Your task to perform on an android device: check the backup settings in the google photos Image 0: 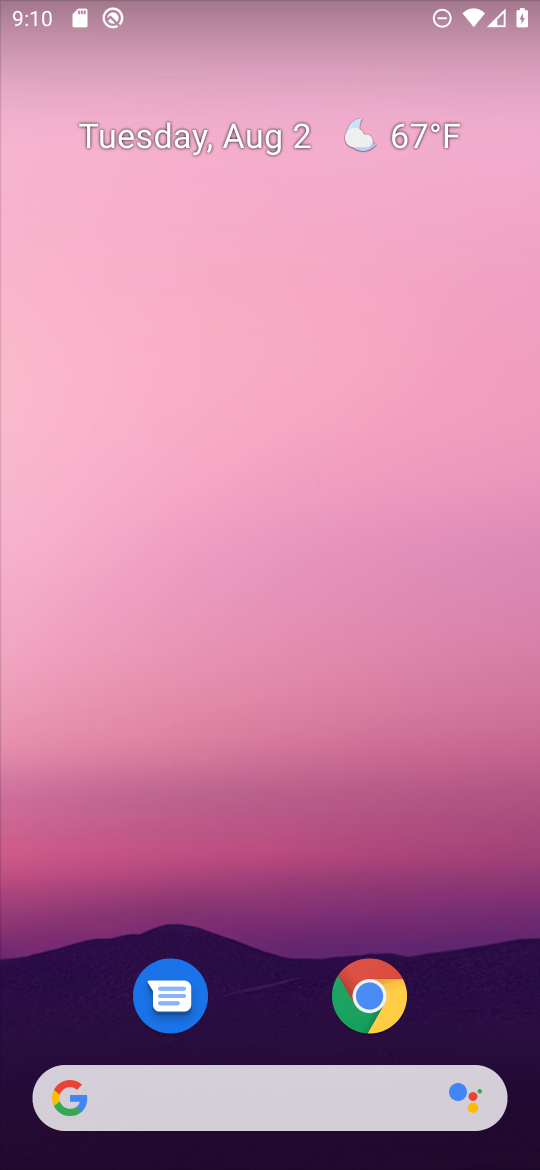
Step 0: press home button
Your task to perform on an android device: check the backup settings in the google photos Image 1: 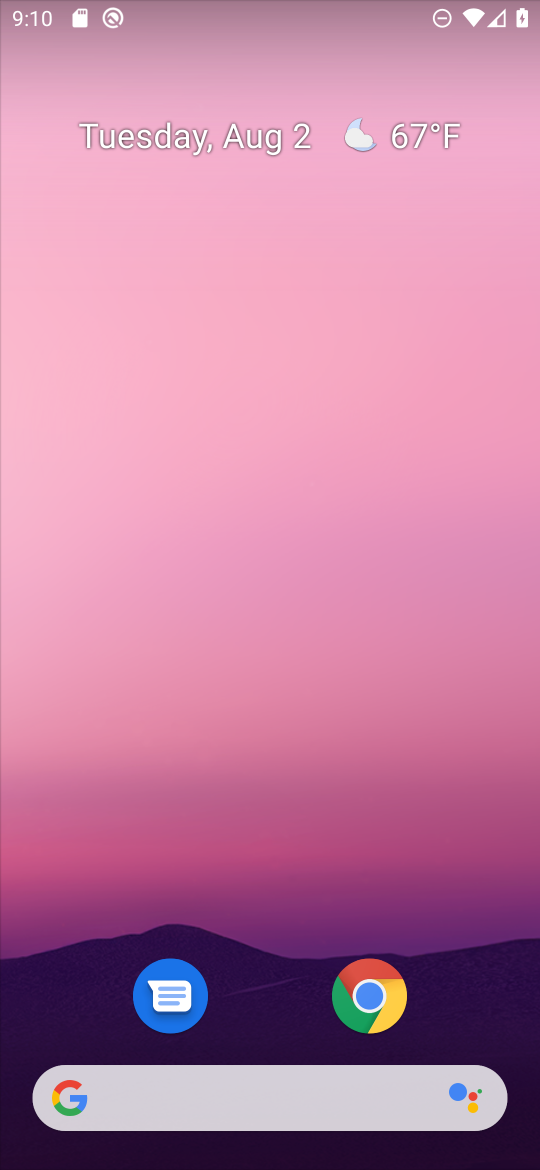
Step 1: drag from (295, 995) to (266, 163)
Your task to perform on an android device: check the backup settings in the google photos Image 2: 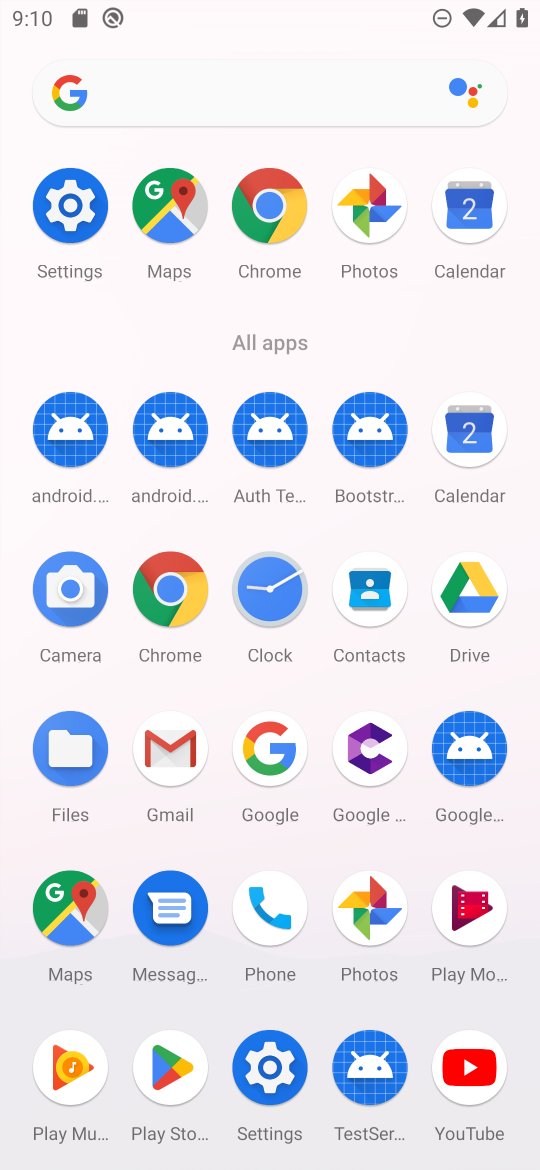
Step 2: click (366, 893)
Your task to perform on an android device: check the backup settings in the google photos Image 3: 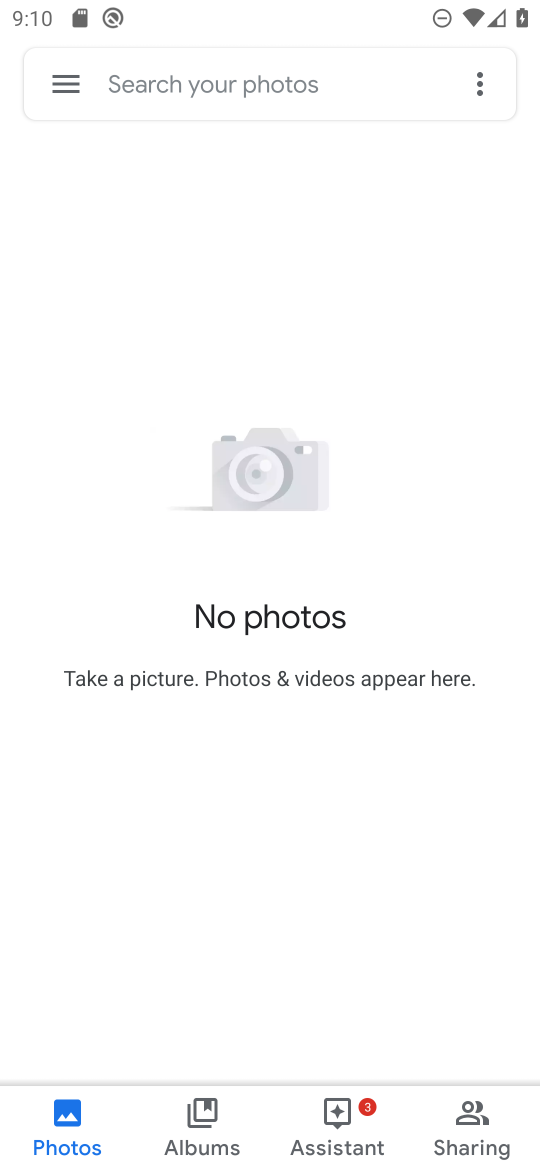
Step 3: click (469, 79)
Your task to perform on an android device: check the backup settings in the google photos Image 4: 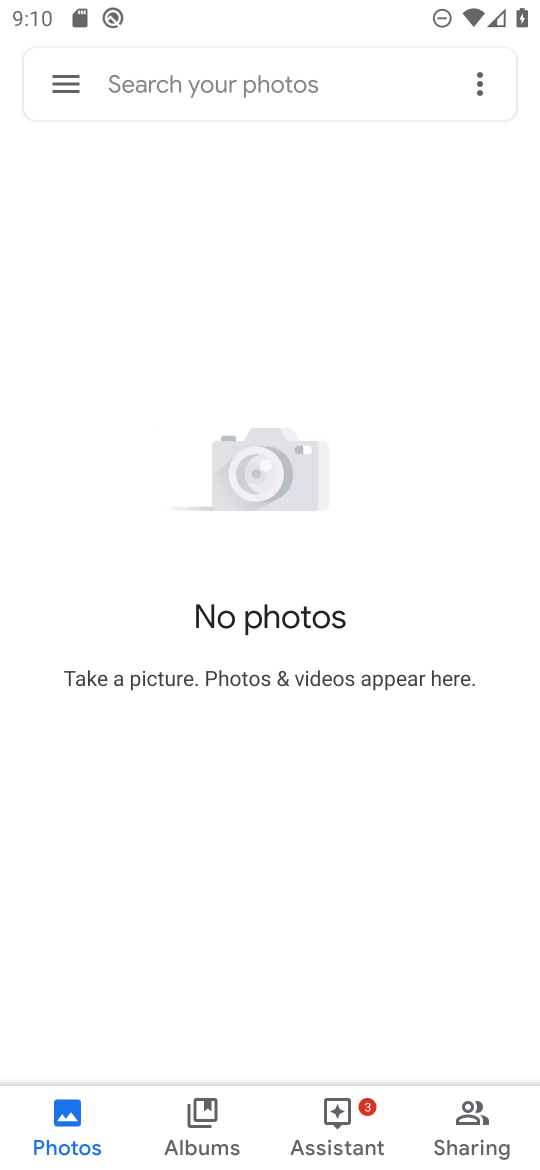
Step 4: click (70, 81)
Your task to perform on an android device: check the backup settings in the google photos Image 5: 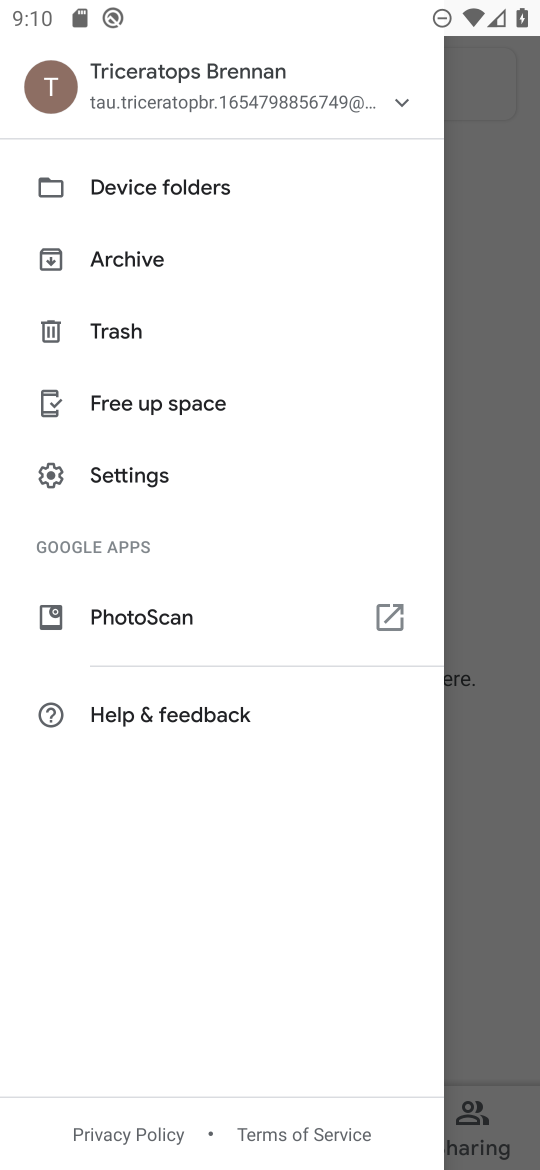
Step 5: click (140, 476)
Your task to perform on an android device: check the backup settings in the google photos Image 6: 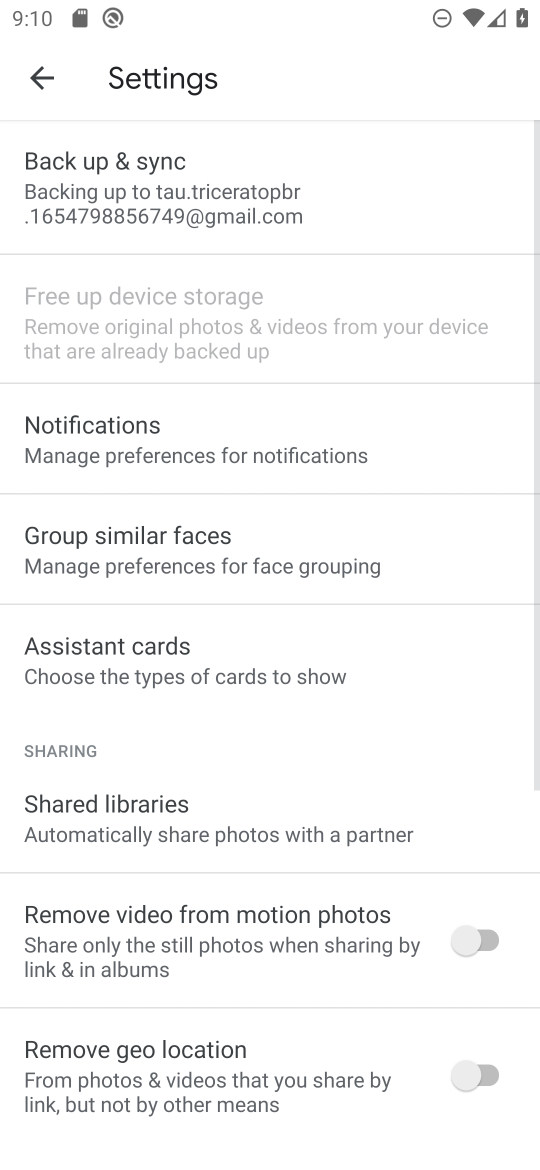
Step 6: click (156, 177)
Your task to perform on an android device: check the backup settings in the google photos Image 7: 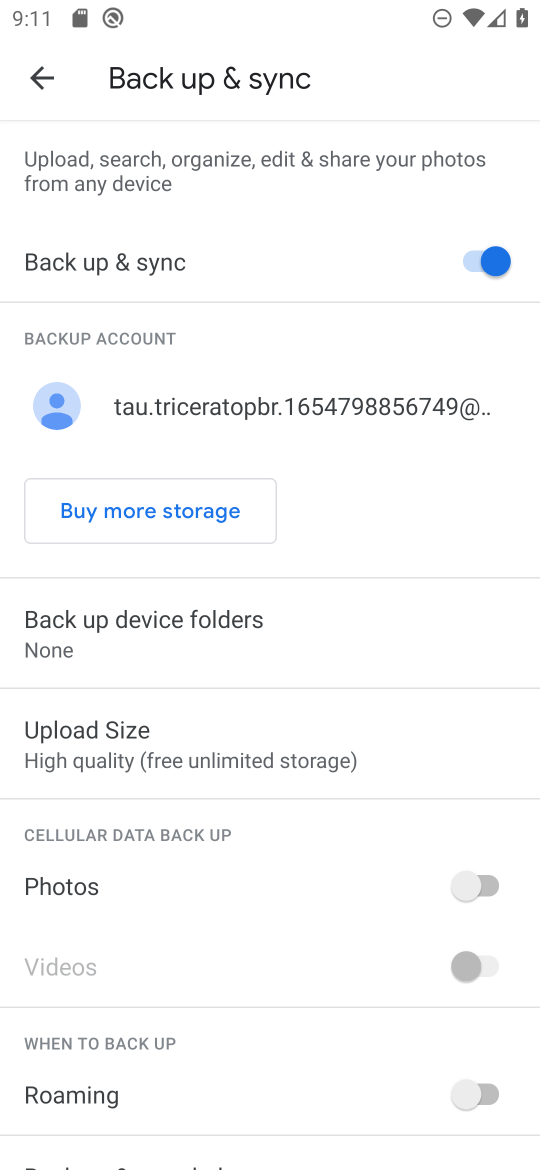
Step 7: task complete